Your task to perform on an android device: Open the stopwatch Image 0: 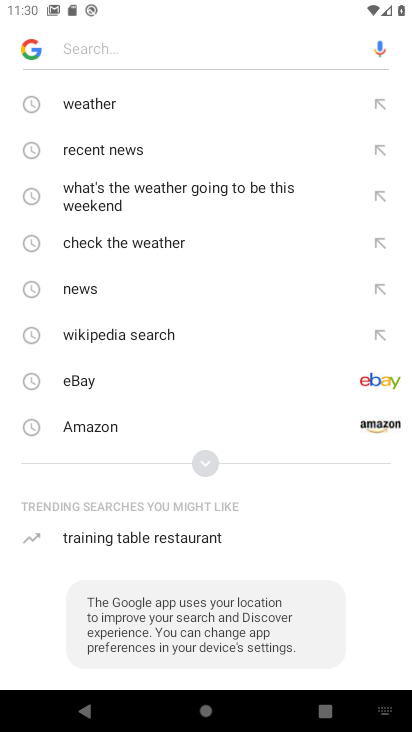
Step 0: press home button
Your task to perform on an android device: Open the stopwatch Image 1: 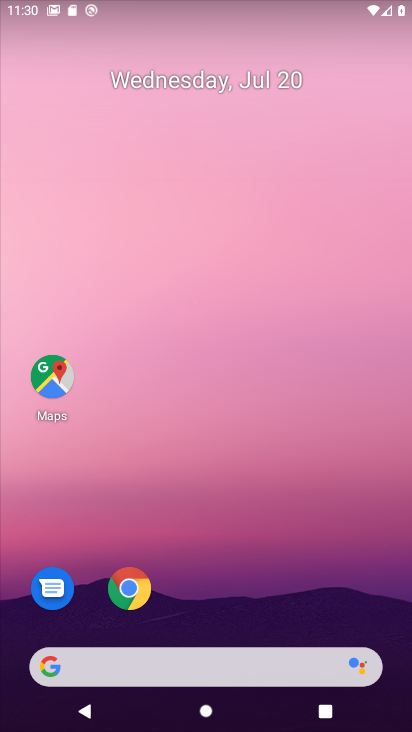
Step 1: drag from (351, 612) to (241, 0)
Your task to perform on an android device: Open the stopwatch Image 2: 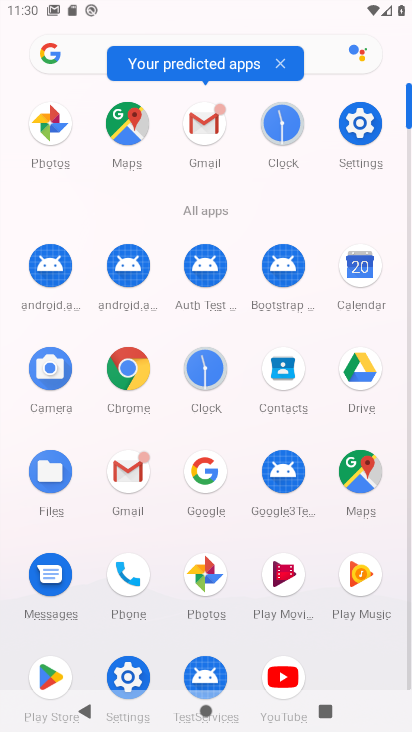
Step 2: click (190, 361)
Your task to perform on an android device: Open the stopwatch Image 3: 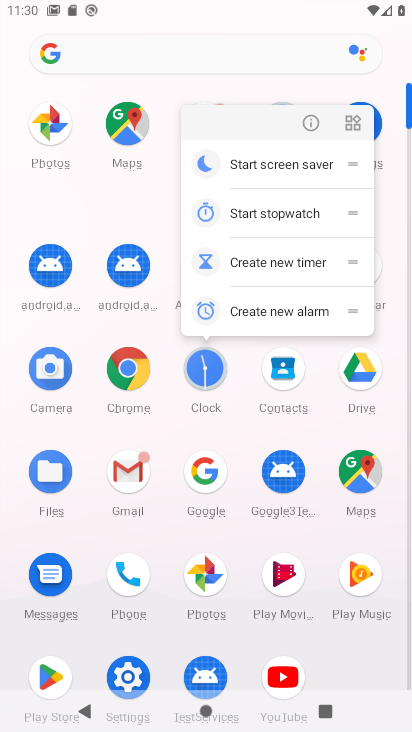
Step 3: click (211, 383)
Your task to perform on an android device: Open the stopwatch Image 4: 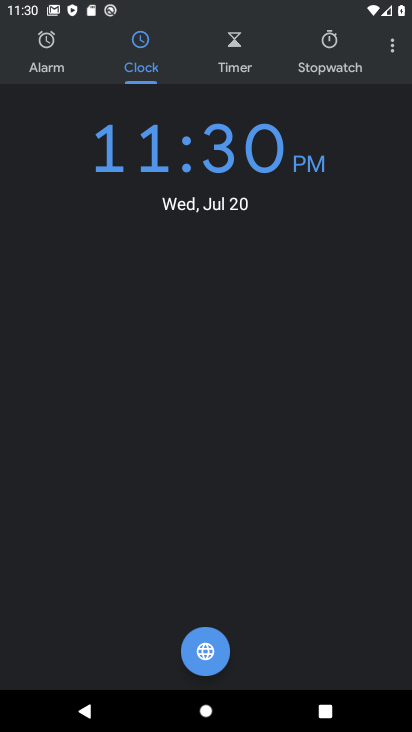
Step 4: click (324, 54)
Your task to perform on an android device: Open the stopwatch Image 5: 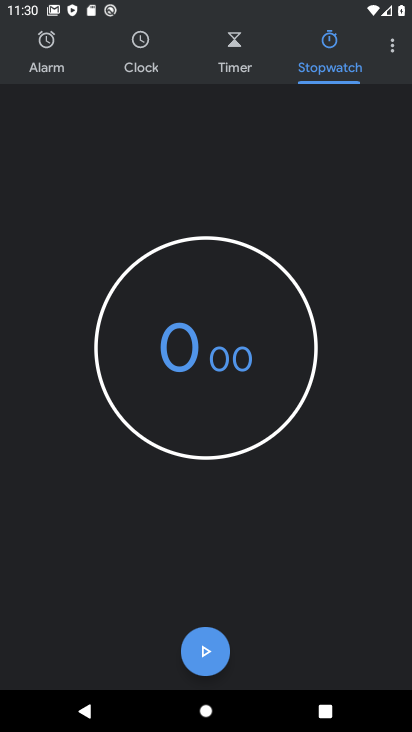
Step 5: task complete